Your task to perform on an android device: Open Google Chrome Image 0: 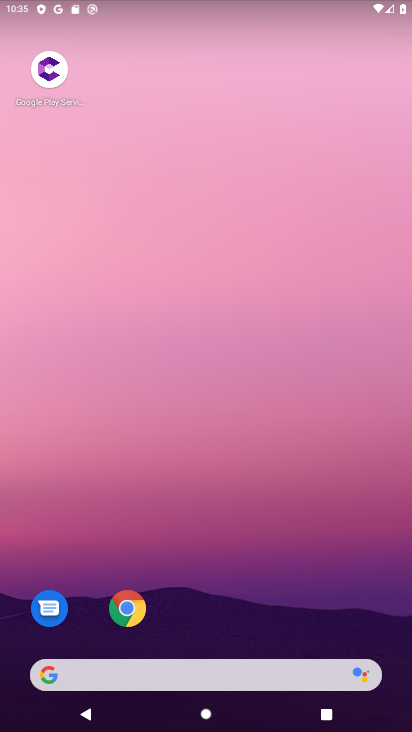
Step 0: click (138, 618)
Your task to perform on an android device: Open Google Chrome Image 1: 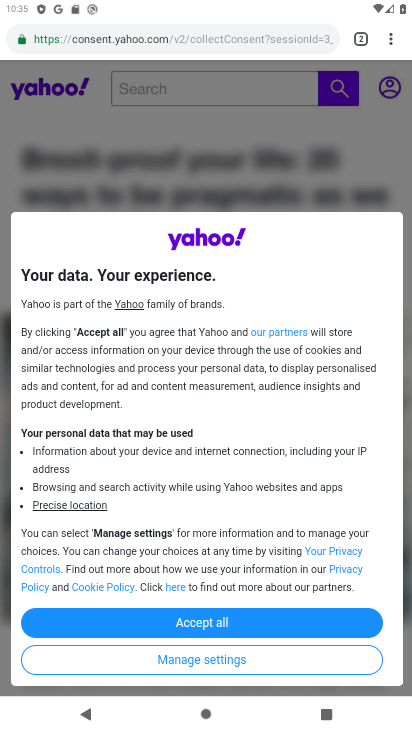
Step 1: task complete